Your task to perform on an android device: turn on the 24-hour format for clock Image 0: 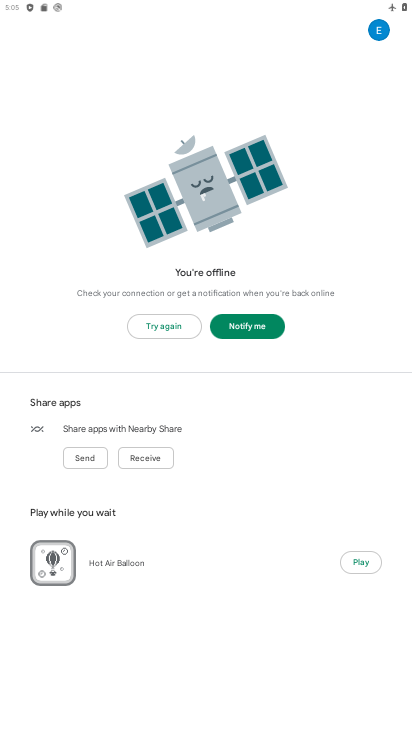
Step 0: press home button
Your task to perform on an android device: turn on the 24-hour format for clock Image 1: 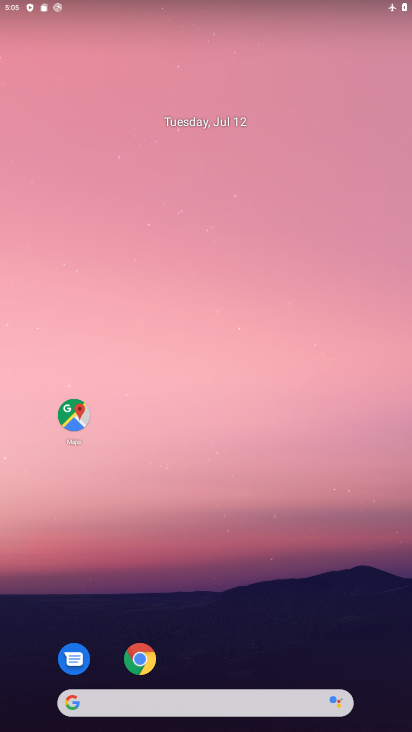
Step 1: drag from (368, 658) to (321, 68)
Your task to perform on an android device: turn on the 24-hour format for clock Image 2: 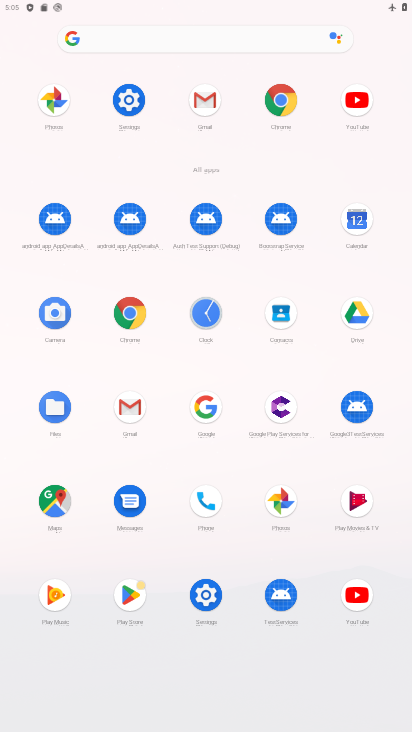
Step 2: click (206, 312)
Your task to perform on an android device: turn on the 24-hour format for clock Image 3: 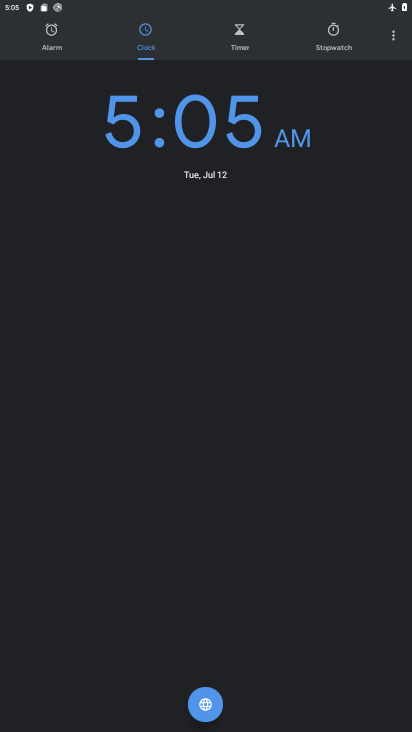
Step 3: click (387, 40)
Your task to perform on an android device: turn on the 24-hour format for clock Image 4: 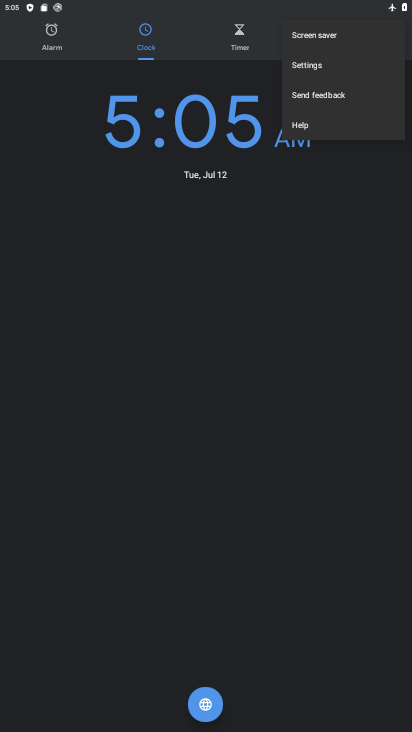
Step 4: click (307, 66)
Your task to perform on an android device: turn on the 24-hour format for clock Image 5: 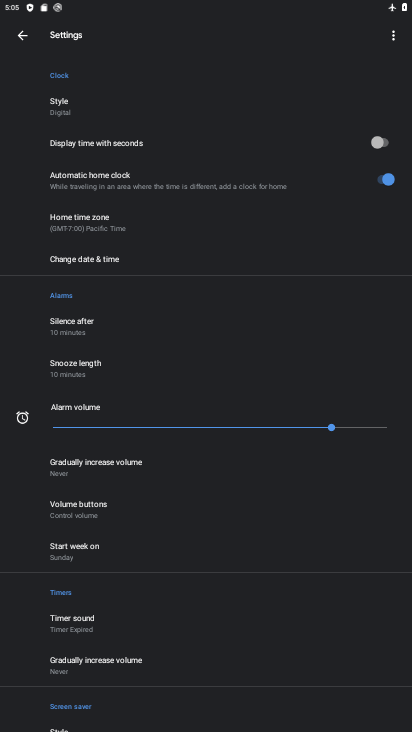
Step 5: click (94, 260)
Your task to perform on an android device: turn on the 24-hour format for clock Image 6: 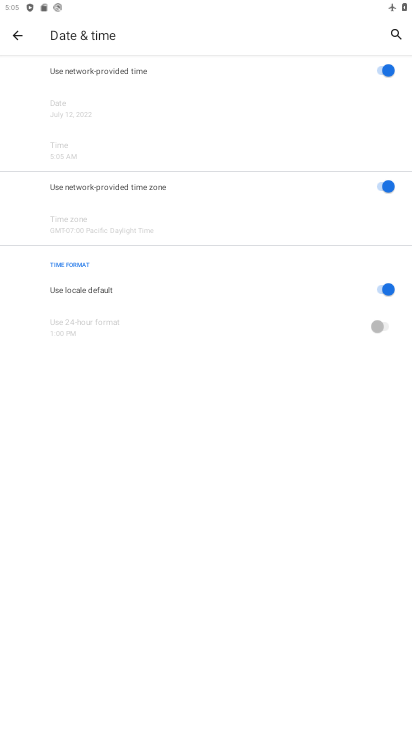
Step 6: click (377, 286)
Your task to perform on an android device: turn on the 24-hour format for clock Image 7: 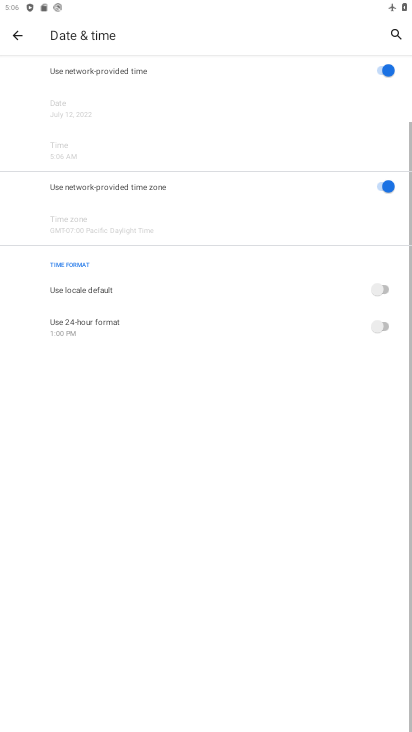
Step 7: click (386, 326)
Your task to perform on an android device: turn on the 24-hour format for clock Image 8: 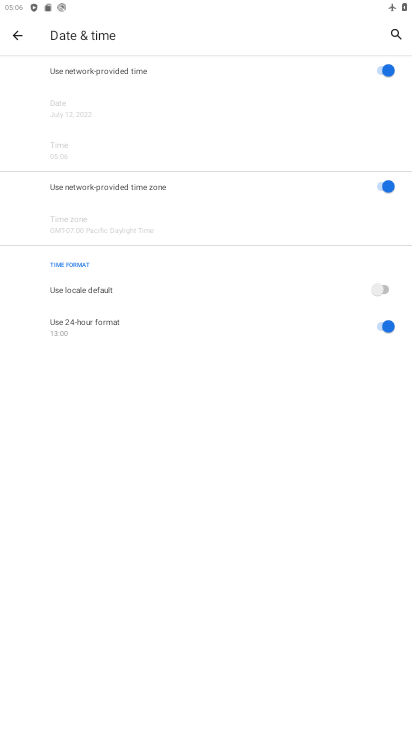
Step 8: task complete